Your task to perform on an android device: turn pop-ups off in chrome Image 0: 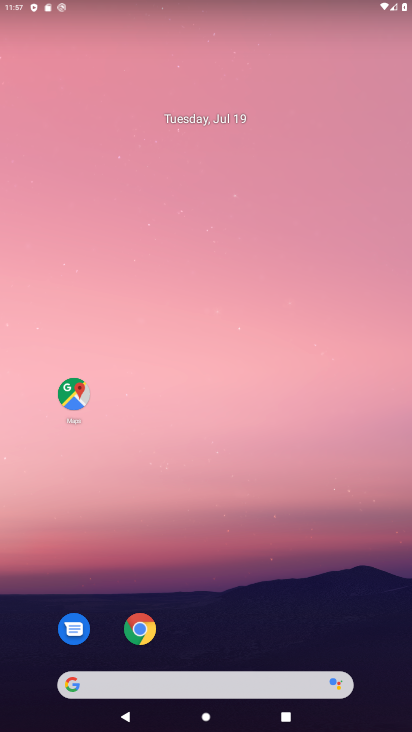
Step 0: drag from (216, 594) to (216, 123)
Your task to perform on an android device: turn pop-ups off in chrome Image 1: 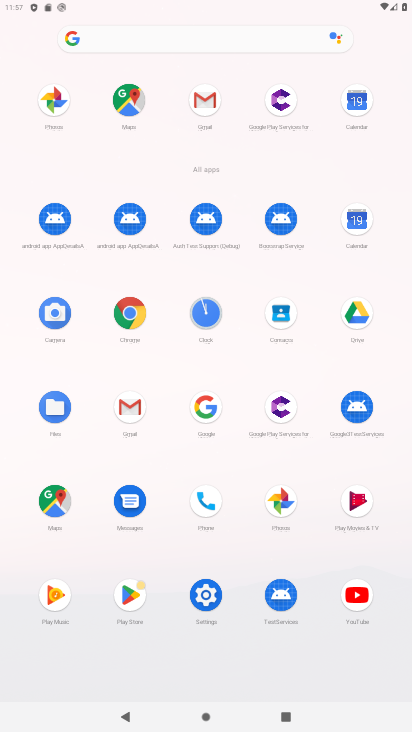
Step 1: click (136, 322)
Your task to perform on an android device: turn pop-ups off in chrome Image 2: 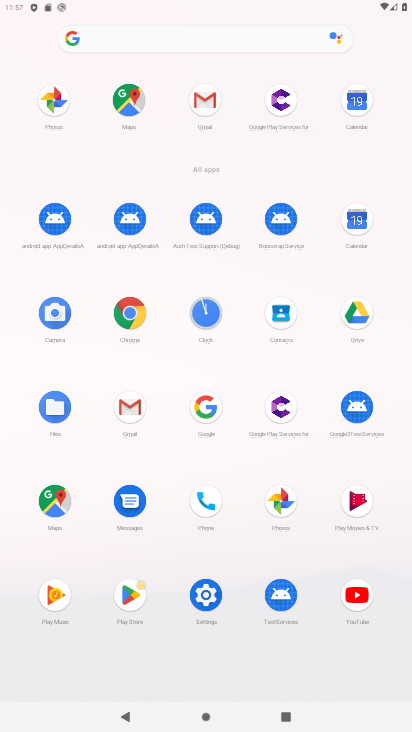
Step 2: click (126, 301)
Your task to perform on an android device: turn pop-ups off in chrome Image 3: 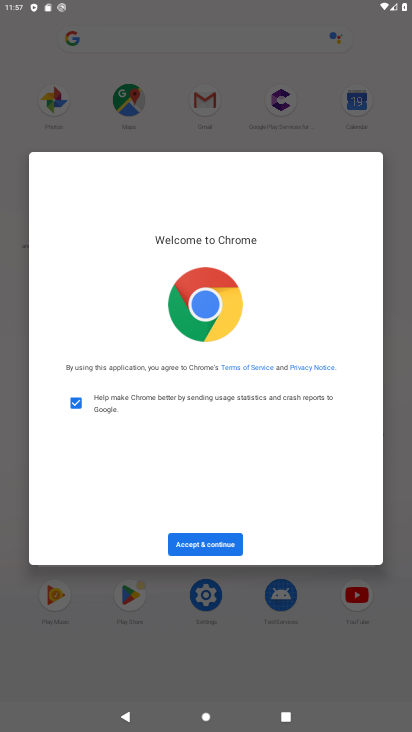
Step 3: click (204, 546)
Your task to perform on an android device: turn pop-ups off in chrome Image 4: 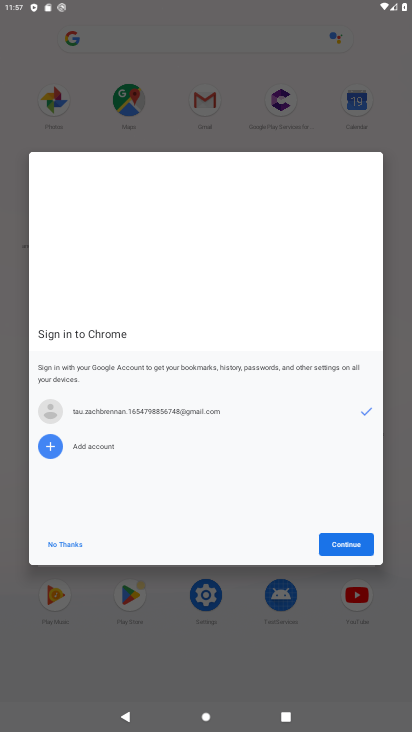
Step 4: click (344, 538)
Your task to perform on an android device: turn pop-ups off in chrome Image 5: 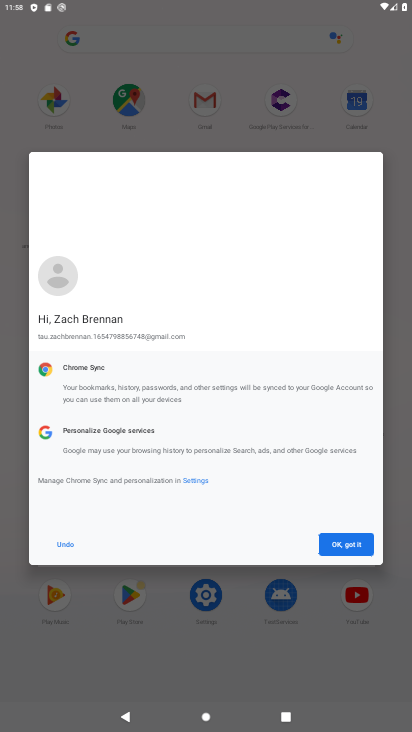
Step 5: click (357, 543)
Your task to perform on an android device: turn pop-ups off in chrome Image 6: 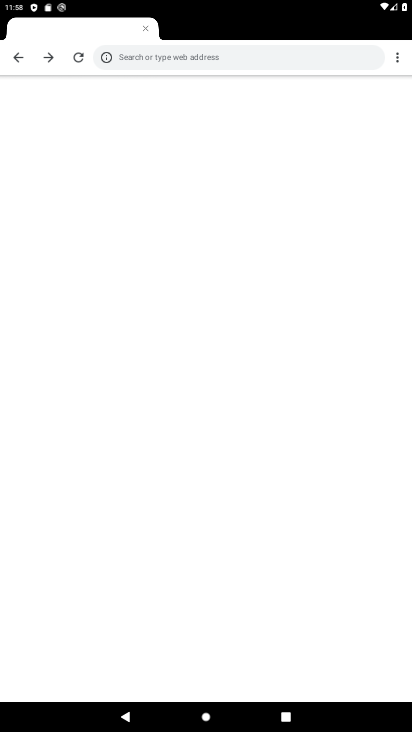
Step 6: drag from (214, 520) to (246, 306)
Your task to perform on an android device: turn pop-ups off in chrome Image 7: 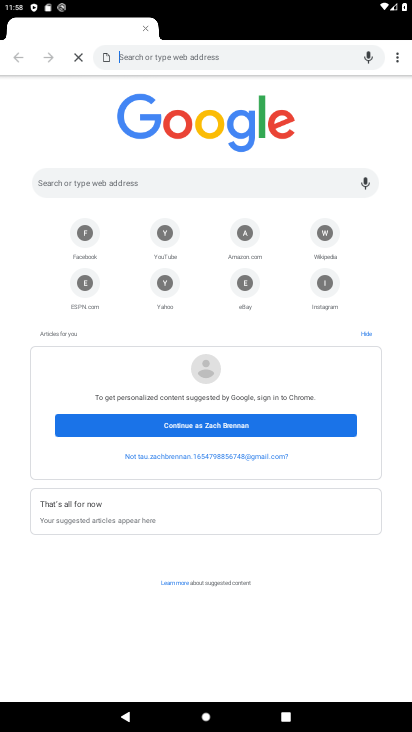
Step 7: drag from (213, 583) to (276, 167)
Your task to perform on an android device: turn pop-ups off in chrome Image 8: 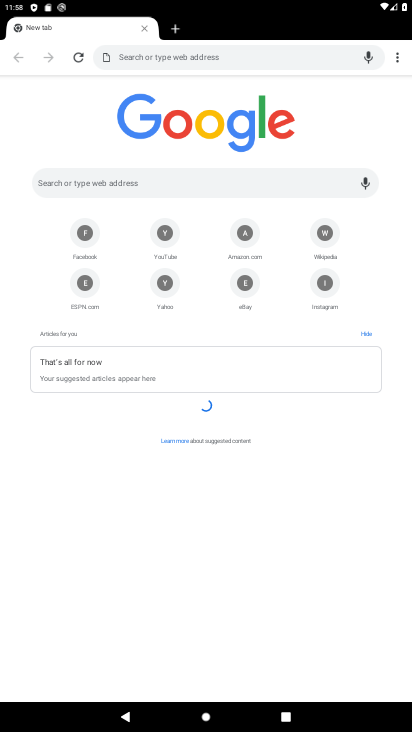
Step 8: click (402, 60)
Your task to perform on an android device: turn pop-ups off in chrome Image 9: 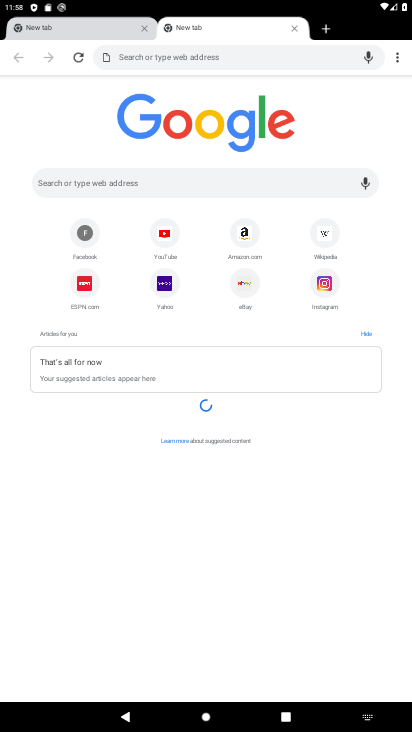
Step 9: drag from (403, 56) to (290, 268)
Your task to perform on an android device: turn pop-ups off in chrome Image 10: 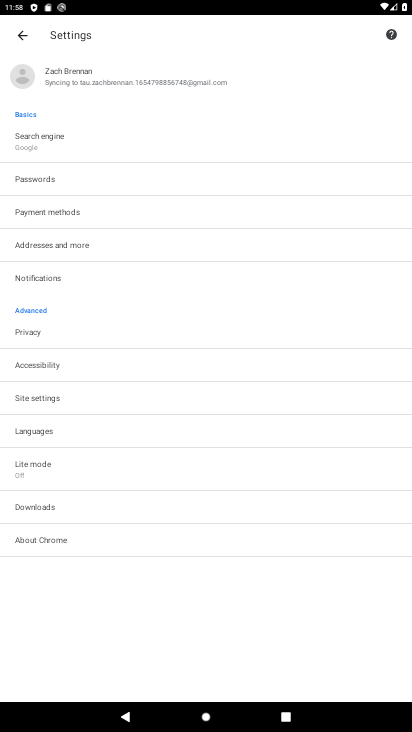
Step 10: click (79, 390)
Your task to perform on an android device: turn pop-ups off in chrome Image 11: 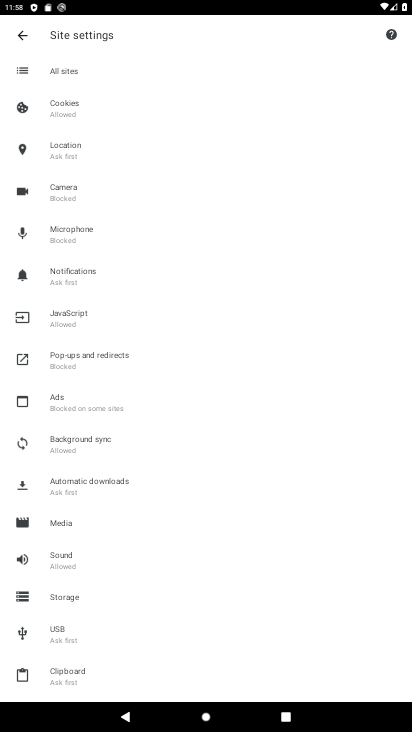
Step 11: click (142, 355)
Your task to perform on an android device: turn pop-ups off in chrome Image 12: 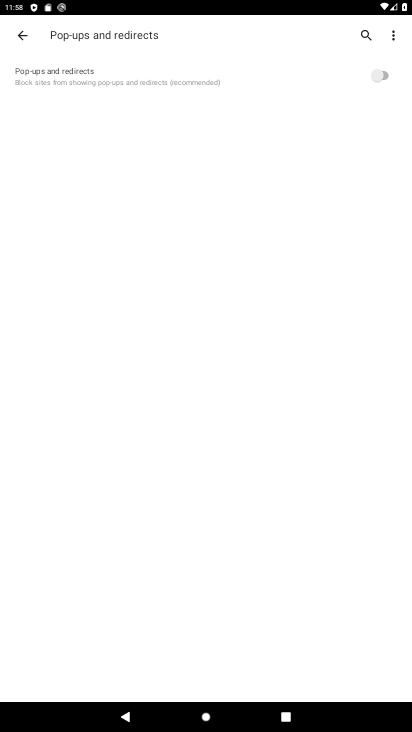
Step 12: task complete